Your task to perform on an android device: open chrome privacy settings Image 0: 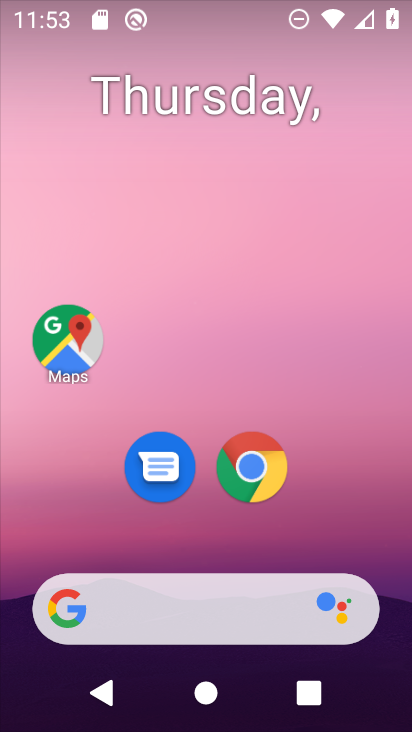
Step 0: click (256, 478)
Your task to perform on an android device: open chrome privacy settings Image 1: 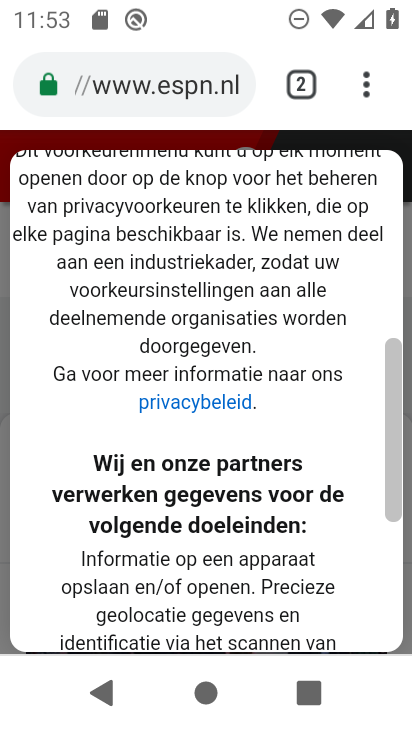
Step 1: click (369, 90)
Your task to perform on an android device: open chrome privacy settings Image 2: 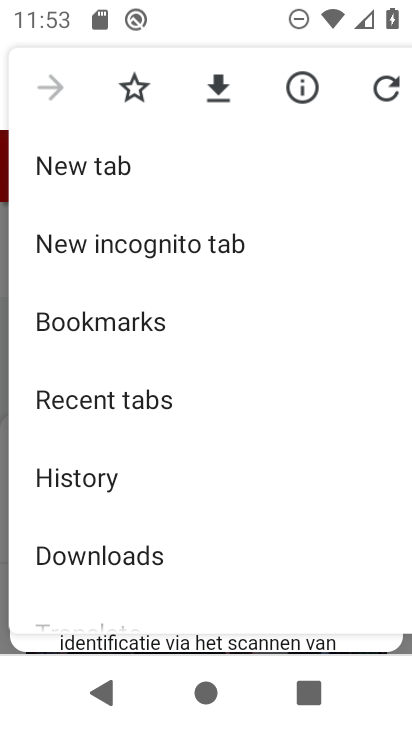
Step 2: drag from (234, 554) to (237, 57)
Your task to perform on an android device: open chrome privacy settings Image 3: 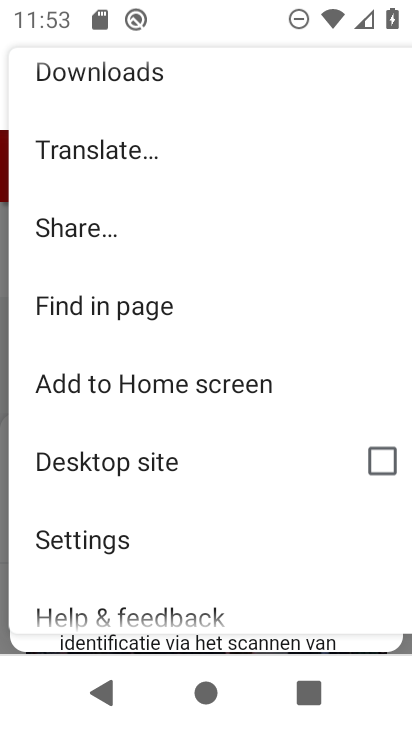
Step 3: click (102, 546)
Your task to perform on an android device: open chrome privacy settings Image 4: 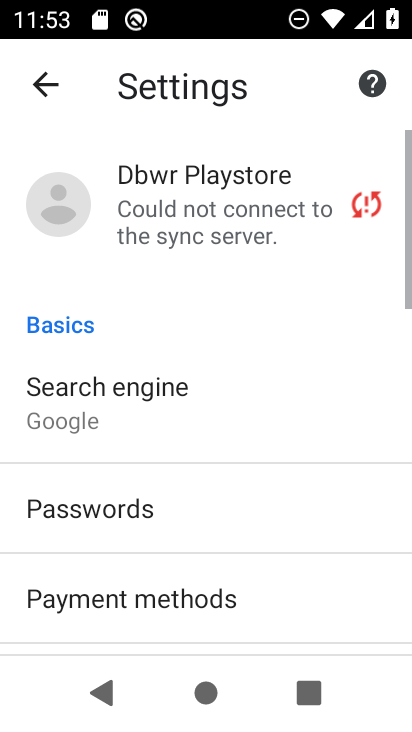
Step 4: drag from (188, 586) to (206, 28)
Your task to perform on an android device: open chrome privacy settings Image 5: 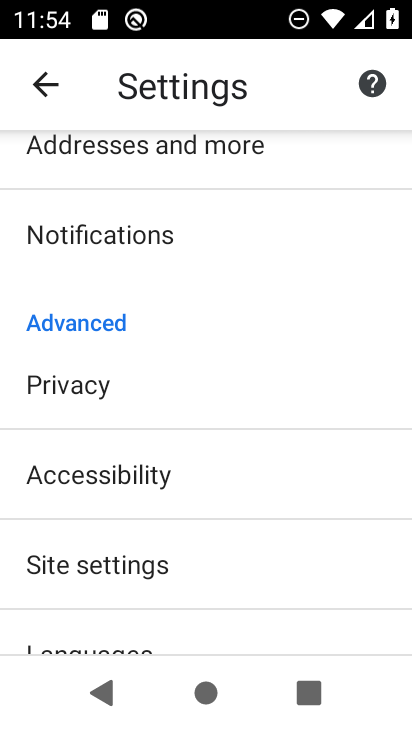
Step 5: click (80, 385)
Your task to perform on an android device: open chrome privacy settings Image 6: 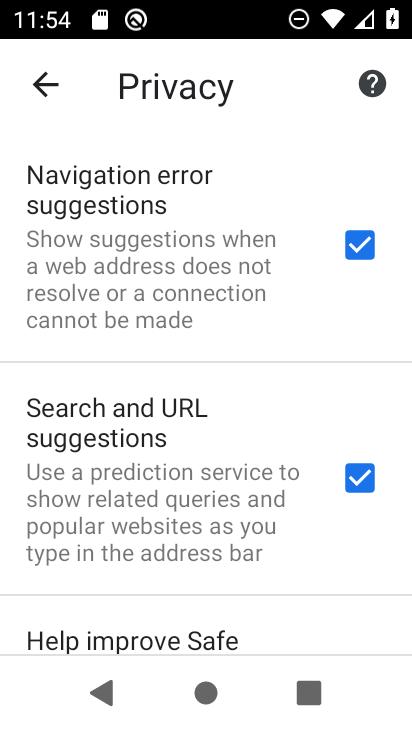
Step 6: task complete